Your task to perform on an android device: change notification settings in the gmail app Image 0: 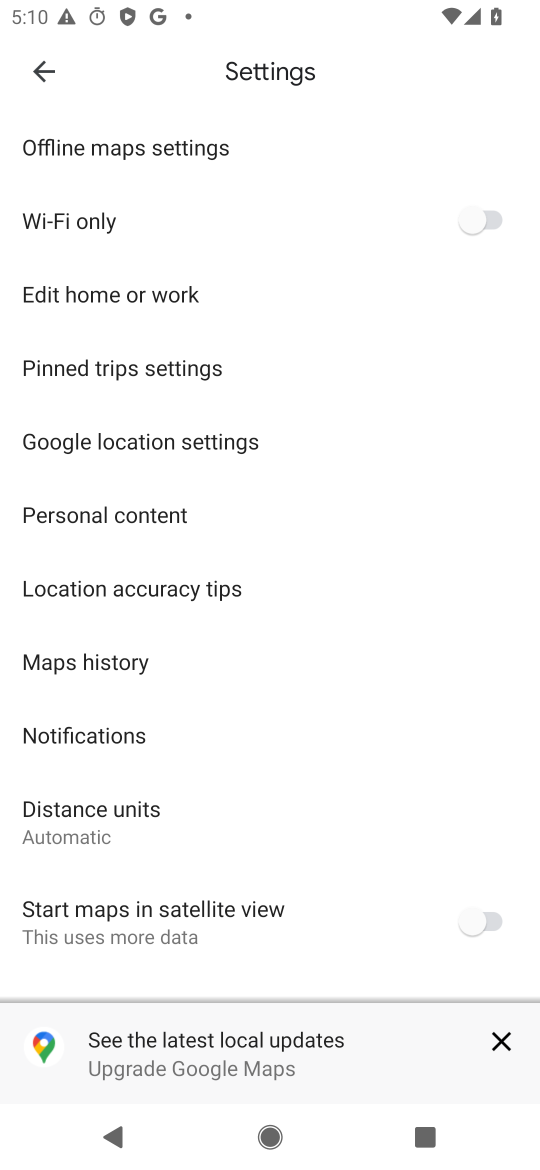
Step 0: press home button
Your task to perform on an android device: change notification settings in the gmail app Image 1: 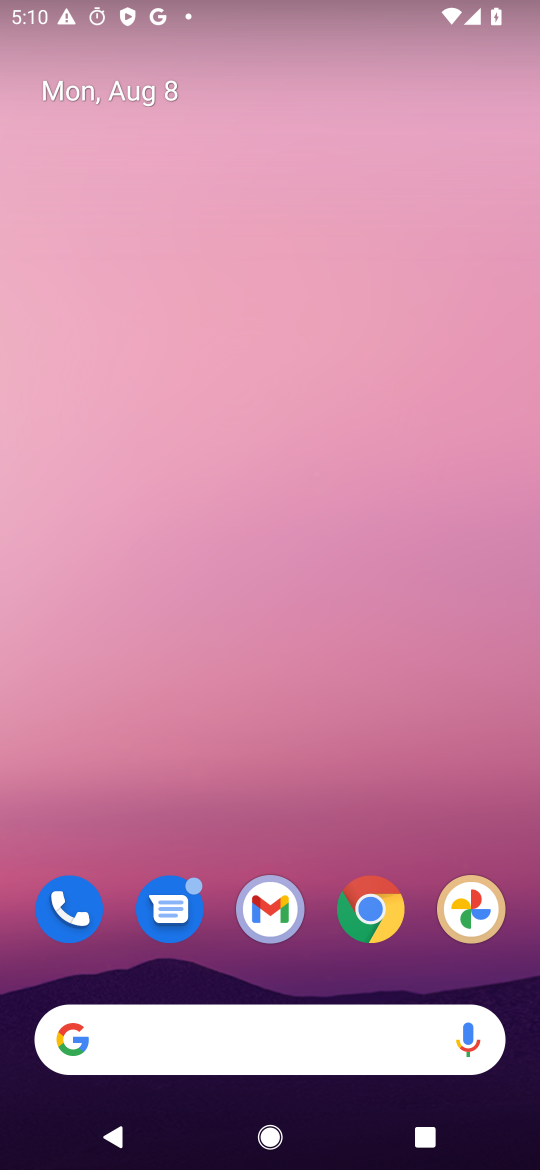
Step 1: click (266, 906)
Your task to perform on an android device: change notification settings in the gmail app Image 2: 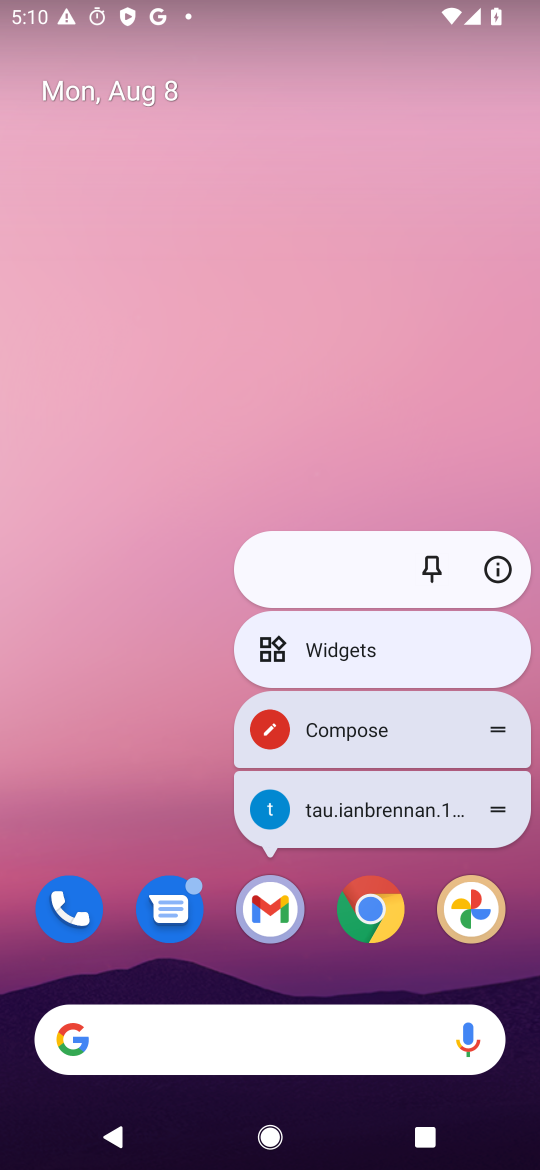
Step 2: click (266, 908)
Your task to perform on an android device: change notification settings in the gmail app Image 3: 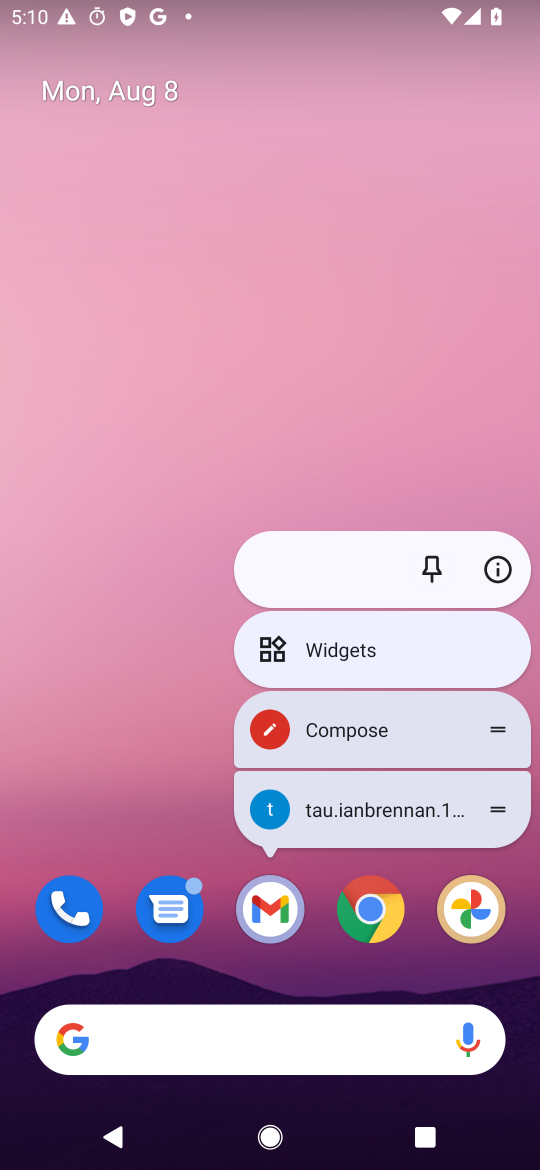
Step 3: click (266, 906)
Your task to perform on an android device: change notification settings in the gmail app Image 4: 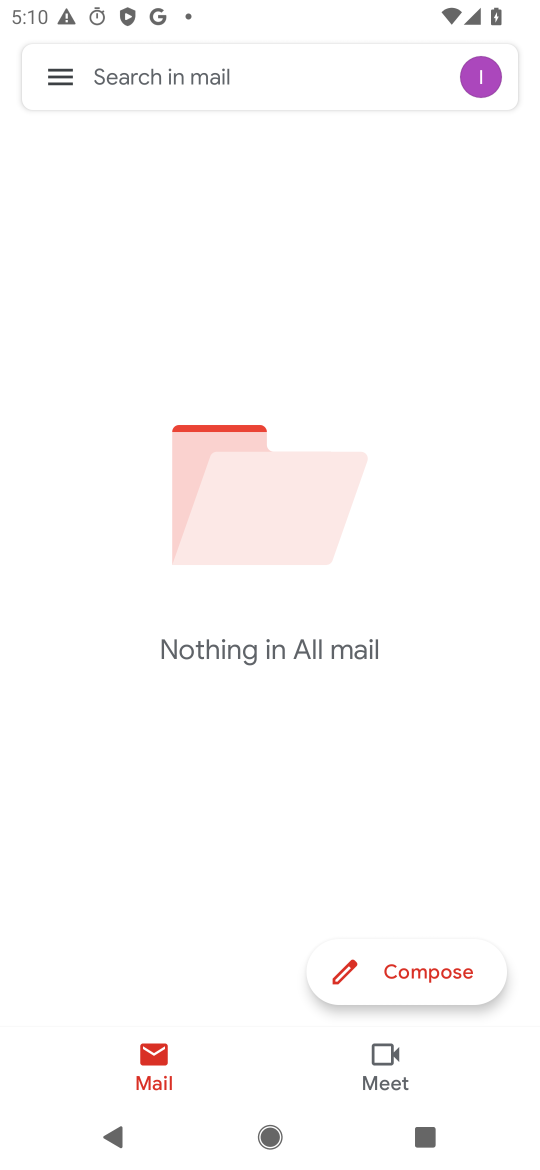
Step 4: click (59, 79)
Your task to perform on an android device: change notification settings in the gmail app Image 5: 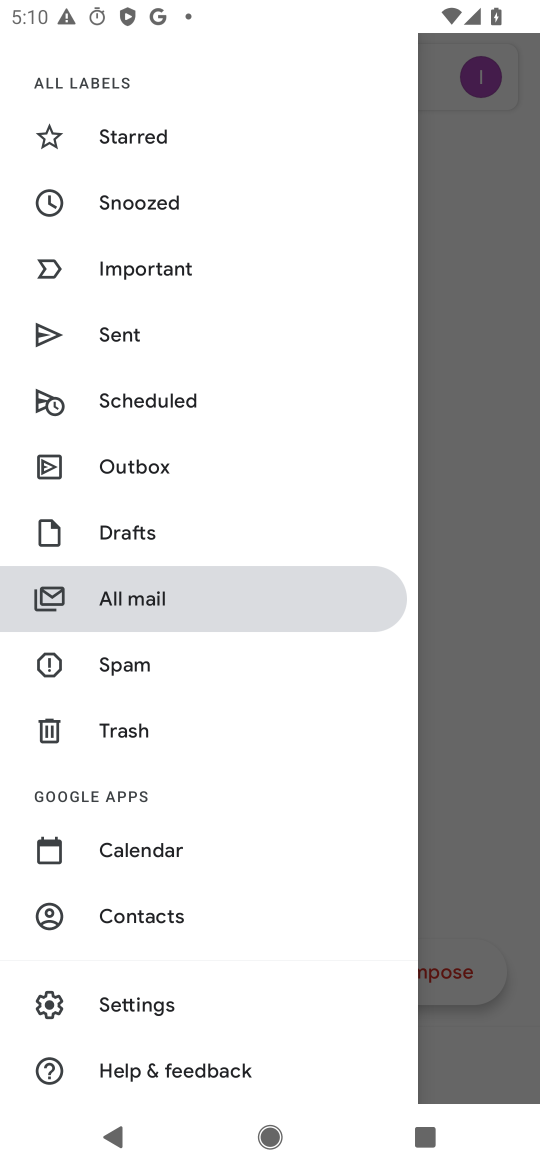
Step 5: click (153, 1011)
Your task to perform on an android device: change notification settings in the gmail app Image 6: 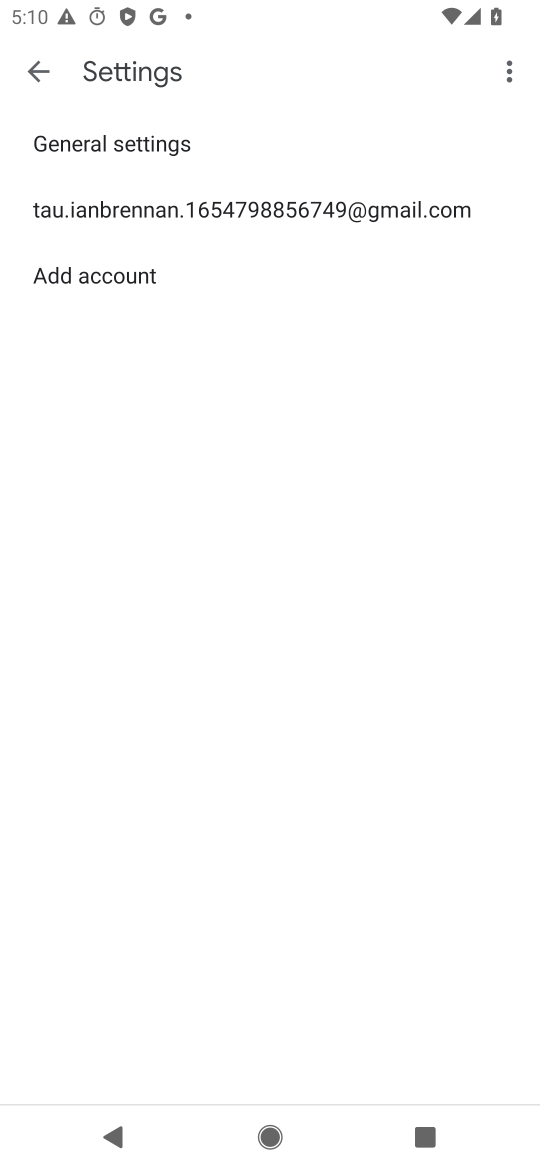
Step 6: click (351, 213)
Your task to perform on an android device: change notification settings in the gmail app Image 7: 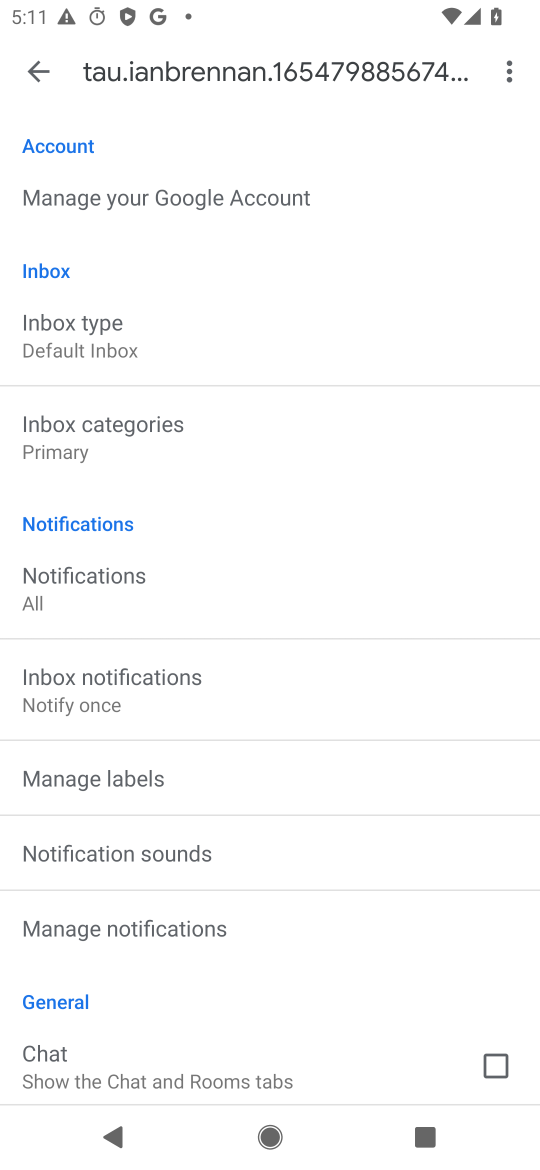
Step 7: click (61, 608)
Your task to perform on an android device: change notification settings in the gmail app Image 8: 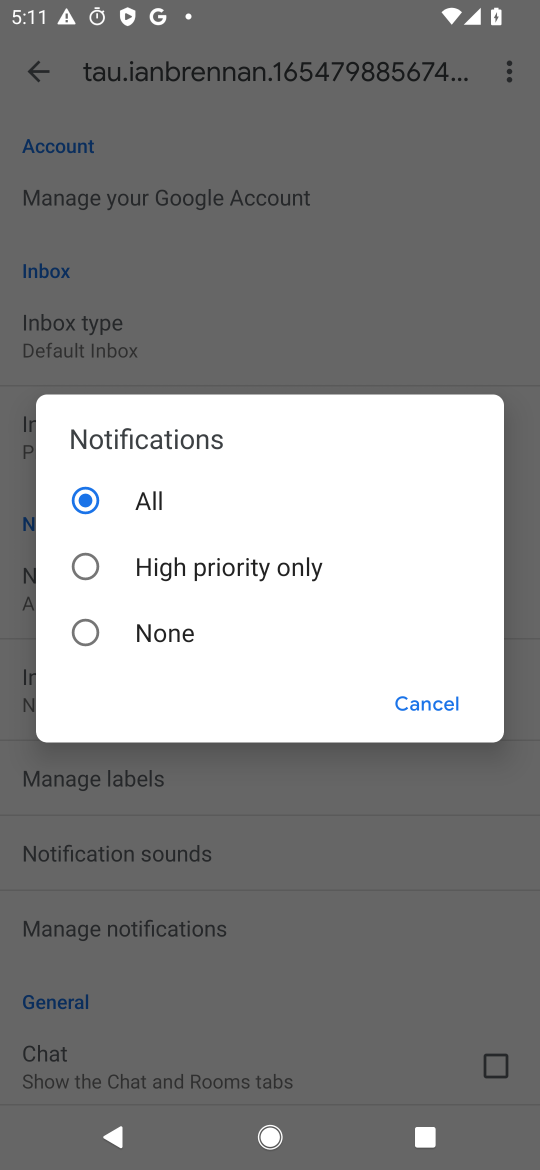
Step 8: click (73, 625)
Your task to perform on an android device: change notification settings in the gmail app Image 9: 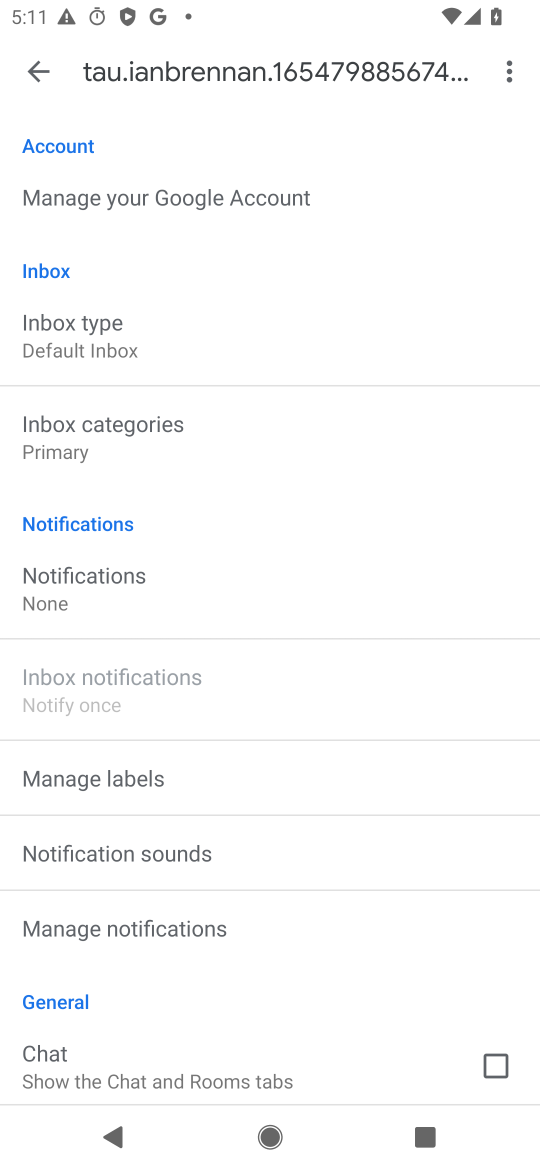
Step 9: task complete